Your task to perform on an android device: check google app version Image 0: 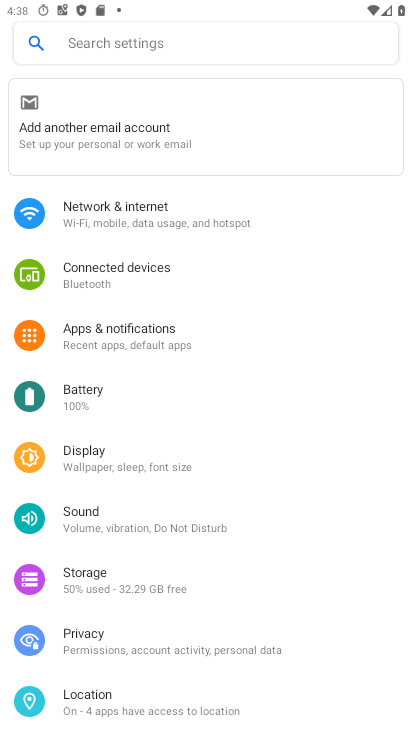
Step 0: press home button
Your task to perform on an android device: check google app version Image 1: 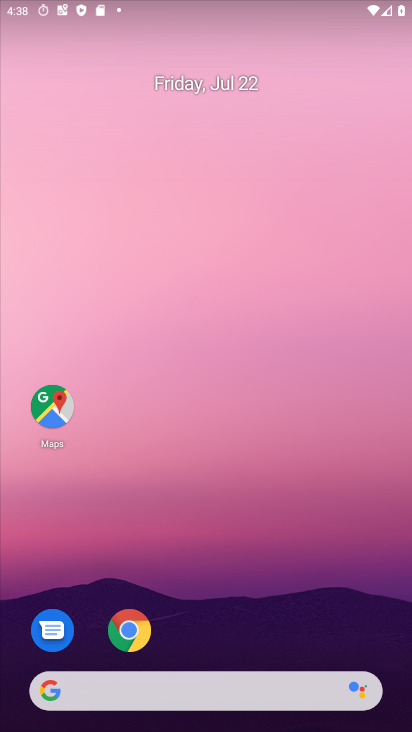
Step 1: drag from (140, 684) to (394, 565)
Your task to perform on an android device: check google app version Image 2: 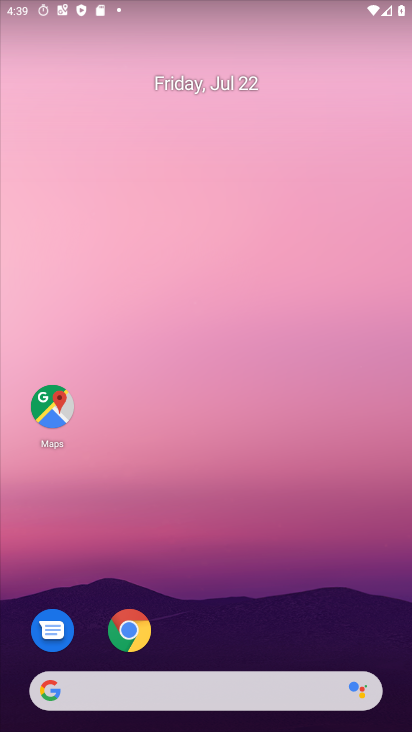
Step 2: drag from (217, 700) to (315, 0)
Your task to perform on an android device: check google app version Image 3: 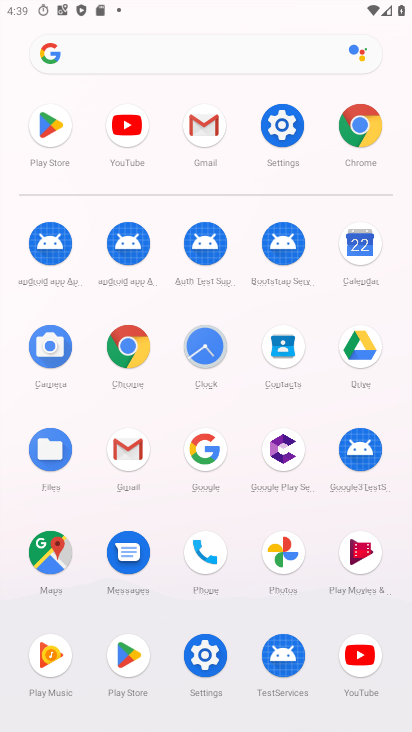
Step 3: click (124, 351)
Your task to perform on an android device: check google app version Image 4: 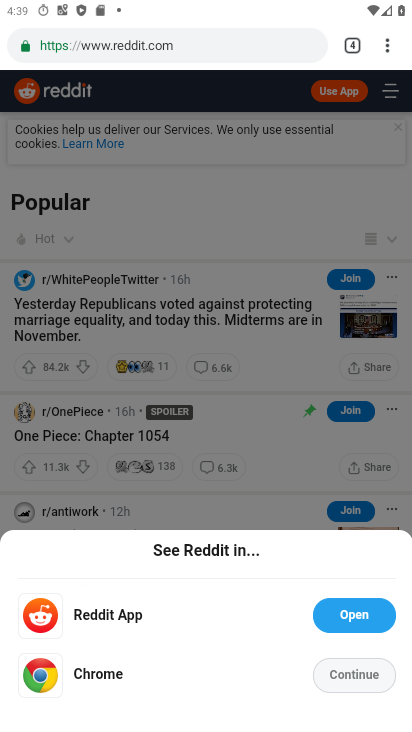
Step 4: drag from (389, 47) to (258, 548)
Your task to perform on an android device: check google app version Image 5: 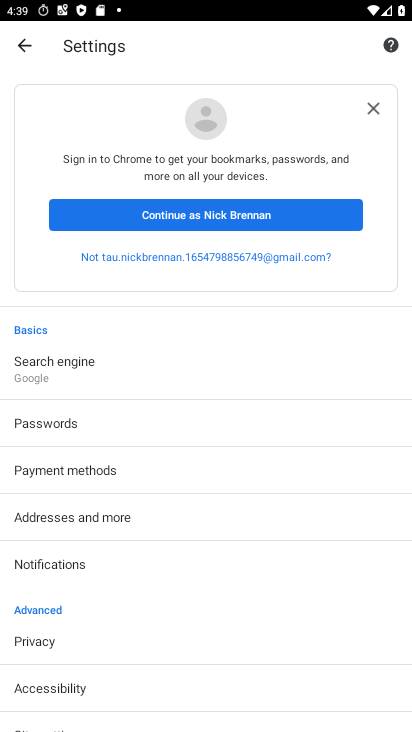
Step 5: press back button
Your task to perform on an android device: check google app version Image 6: 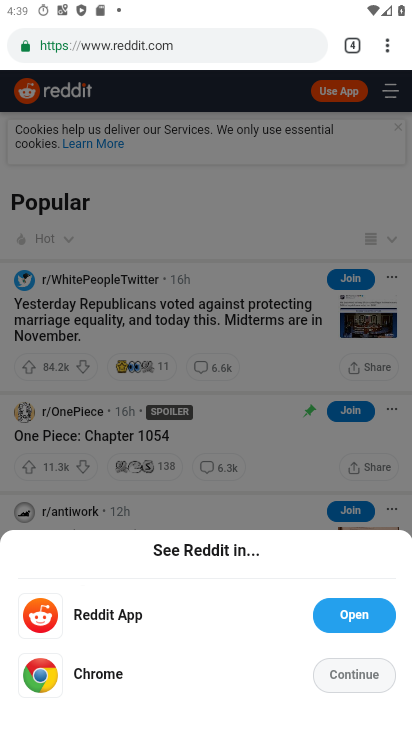
Step 6: click (391, 42)
Your task to perform on an android device: check google app version Image 7: 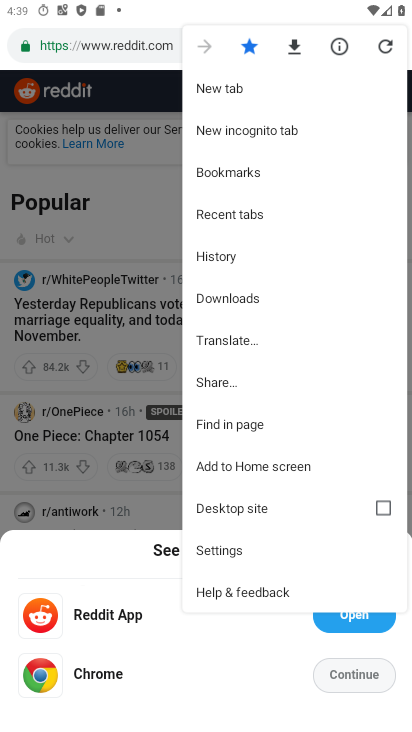
Step 7: click (259, 593)
Your task to perform on an android device: check google app version Image 8: 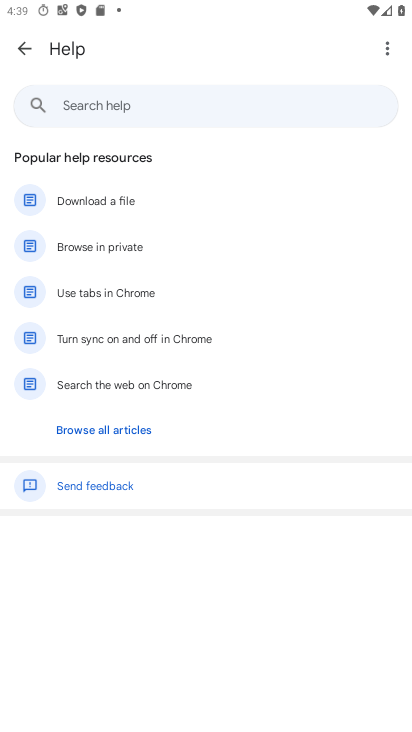
Step 8: click (394, 38)
Your task to perform on an android device: check google app version Image 9: 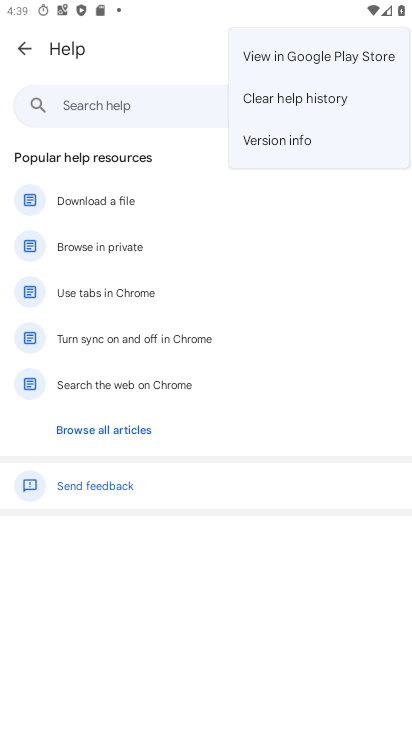
Step 9: click (283, 137)
Your task to perform on an android device: check google app version Image 10: 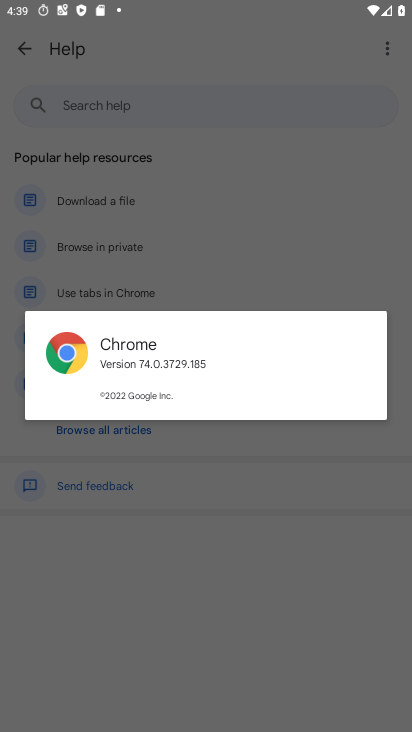
Step 10: task complete